Your task to perform on an android device: Open calendar and show me the first week of next month Image 0: 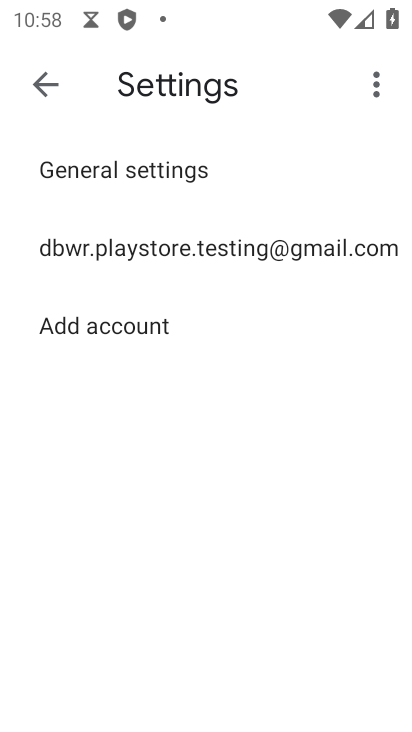
Step 0: press home button
Your task to perform on an android device: Open calendar and show me the first week of next month Image 1: 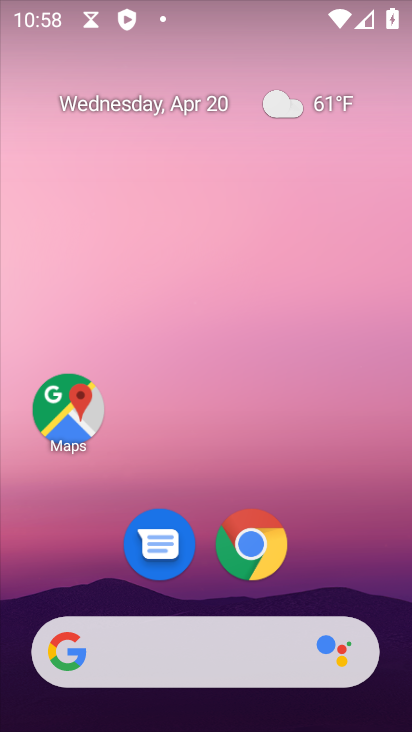
Step 1: drag from (148, 649) to (296, 204)
Your task to perform on an android device: Open calendar and show me the first week of next month Image 2: 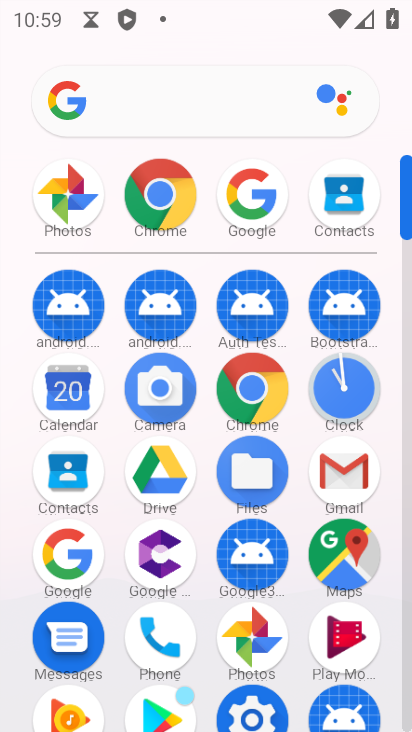
Step 2: click (73, 405)
Your task to perform on an android device: Open calendar and show me the first week of next month Image 3: 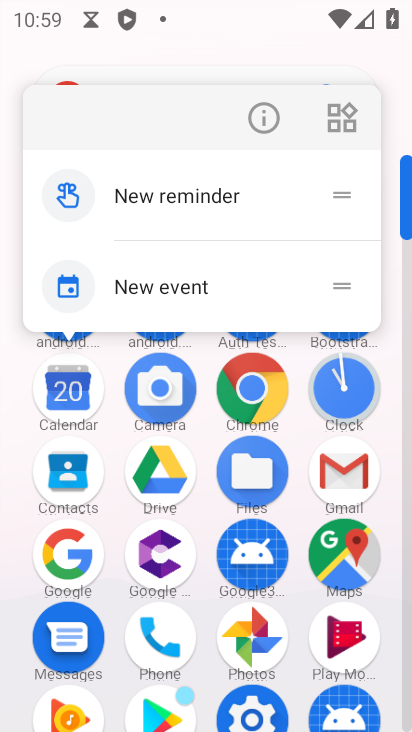
Step 3: click (67, 382)
Your task to perform on an android device: Open calendar and show me the first week of next month Image 4: 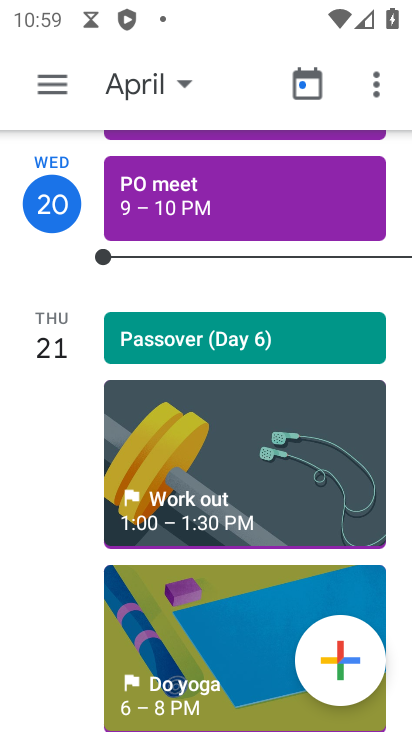
Step 4: click (142, 87)
Your task to perform on an android device: Open calendar and show me the first week of next month Image 5: 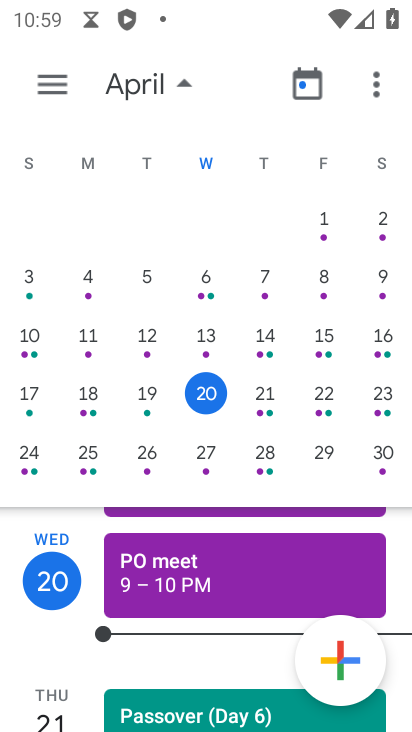
Step 5: drag from (332, 379) to (8, 409)
Your task to perform on an android device: Open calendar and show me the first week of next month Image 6: 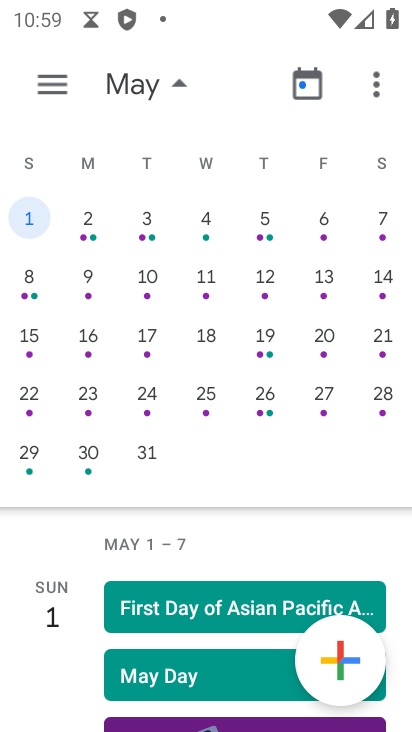
Step 6: click (30, 214)
Your task to perform on an android device: Open calendar and show me the first week of next month Image 7: 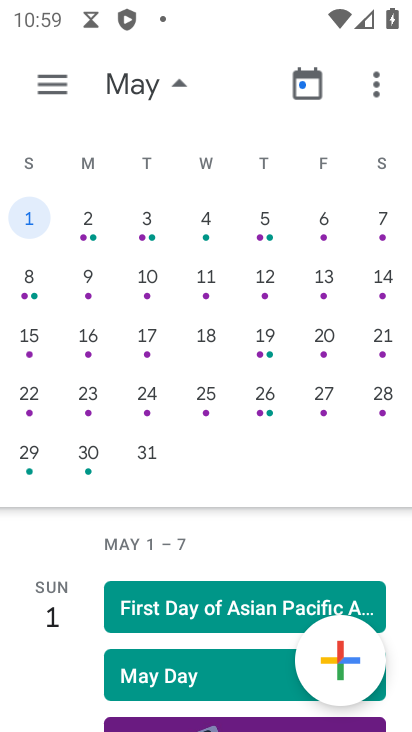
Step 7: click (47, 84)
Your task to perform on an android device: Open calendar and show me the first week of next month Image 8: 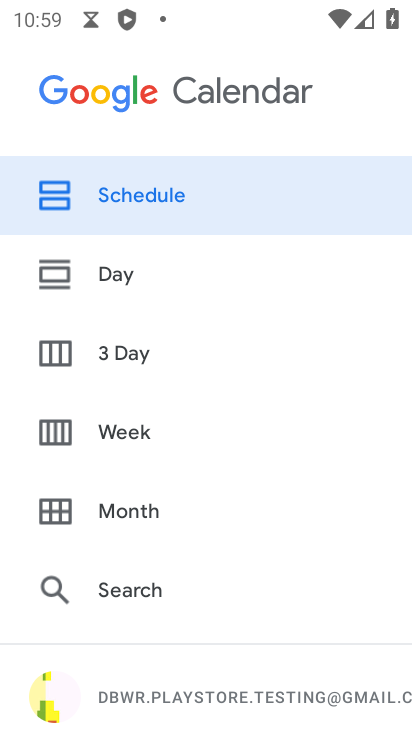
Step 8: click (129, 430)
Your task to perform on an android device: Open calendar and show me the first week of next month Image 9: 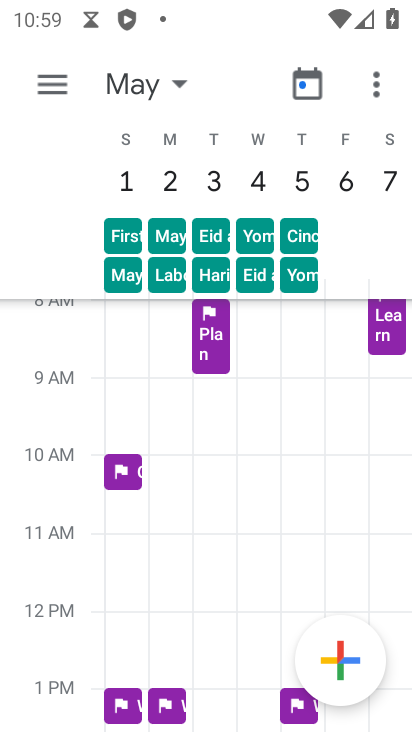
Step 9: task complete